Your task to perform on an android device: empty trash in the gmail app Image 0: 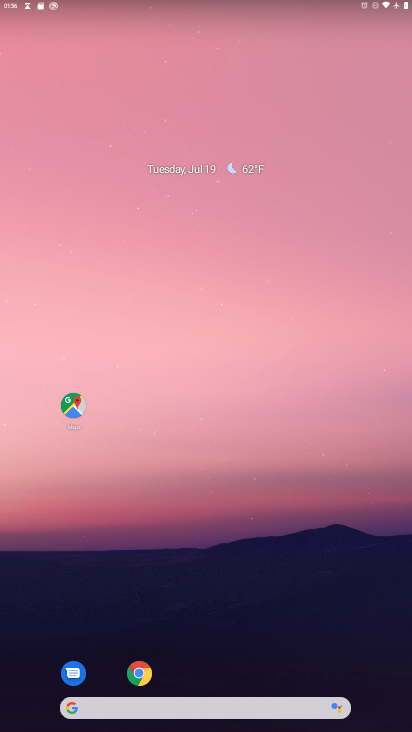
Step 0: drag from (251, 633) to (254, 335)
Your task to perform on an android device: empty trash in the gmail app Image 1: 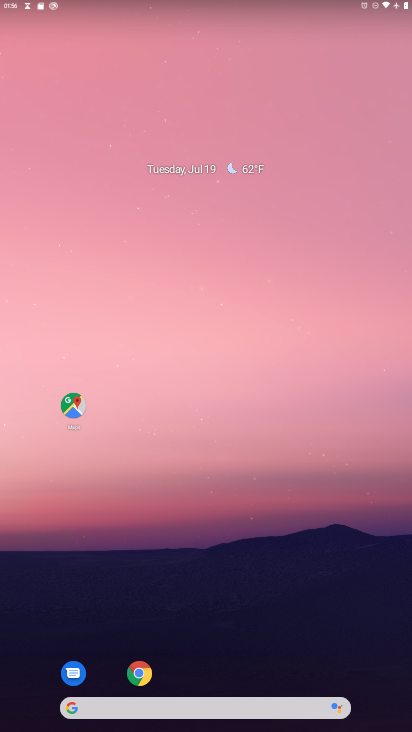
Step 1: drag from (218, 681) to (217, 270)
Your task to perform on an android device: empty trash in the gmail app Image 2: 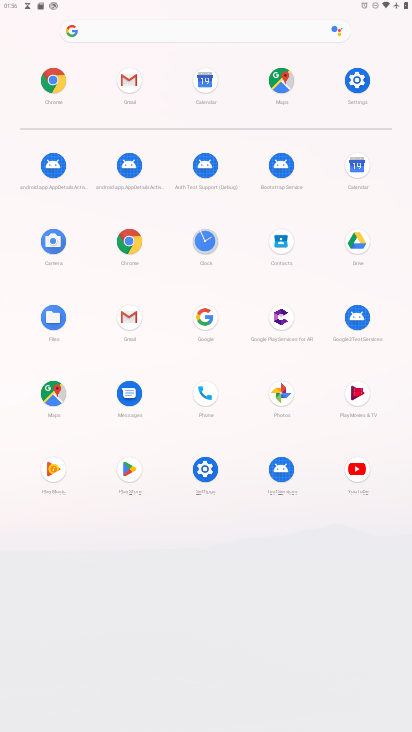
Step 2: click (126, 323)
Your task to perform on an android device: empty trash in the gmail app Image 3: 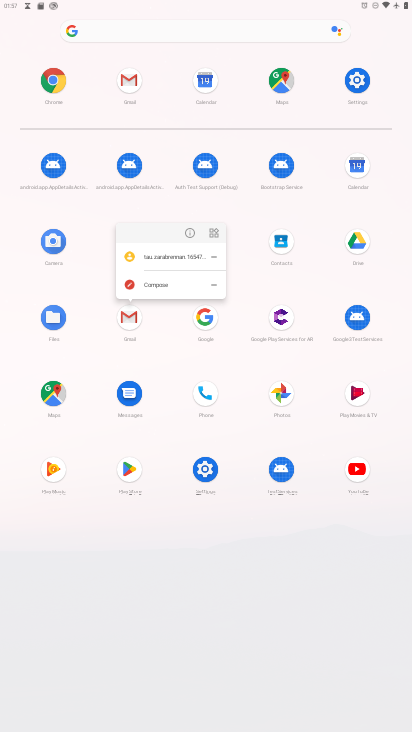
Step 3: click (131, 314)
Your task to perform on an android device: empty trash in the gmail app Image 4: 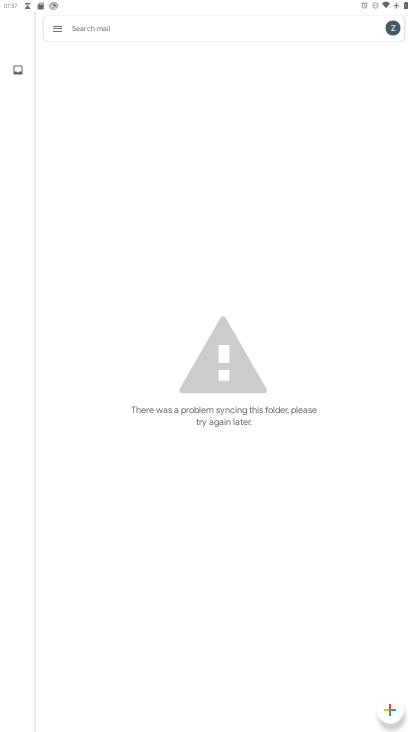
Step 4: click (60, 30)
Your task to perform on an android device: empty trash in the gmail app Image 5: 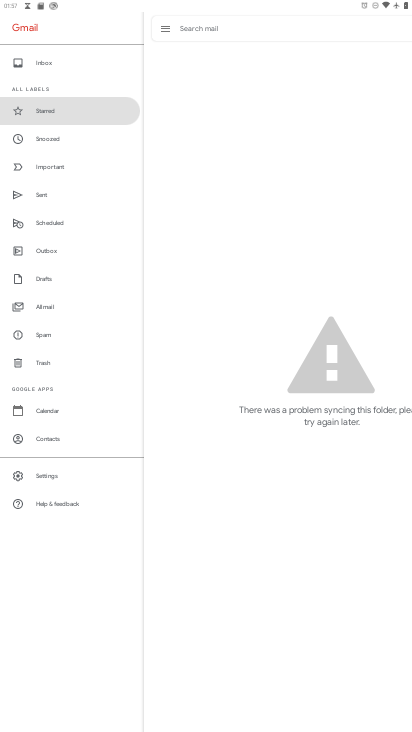
Step 5: click (41, 353)
Your task to perform on an android device: empty trash in the gmail app Image 6: 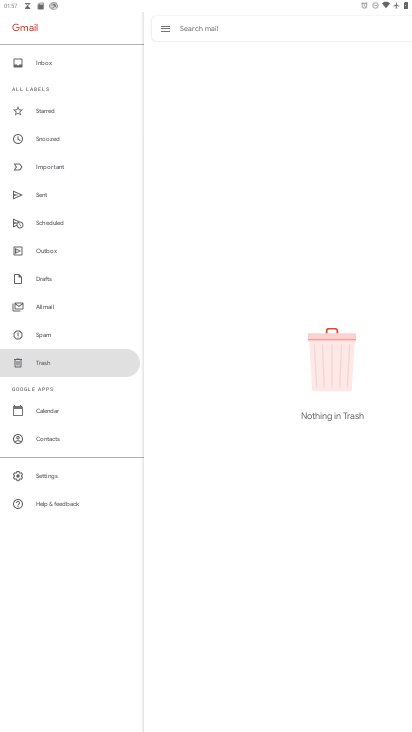
Step 6: task complete